Your task to perform on an android device: see tabs open on other devices in the chrome app Image 0: 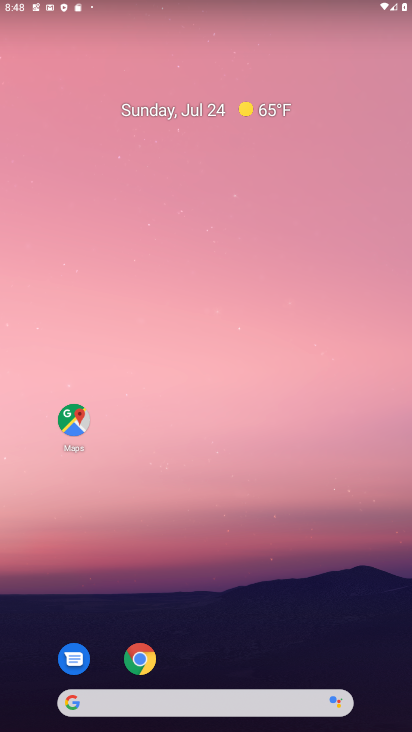
Step 0: click (139, 662)
Your task to perform on an android device: see tabs open on other devices in the chrome app Image 1: 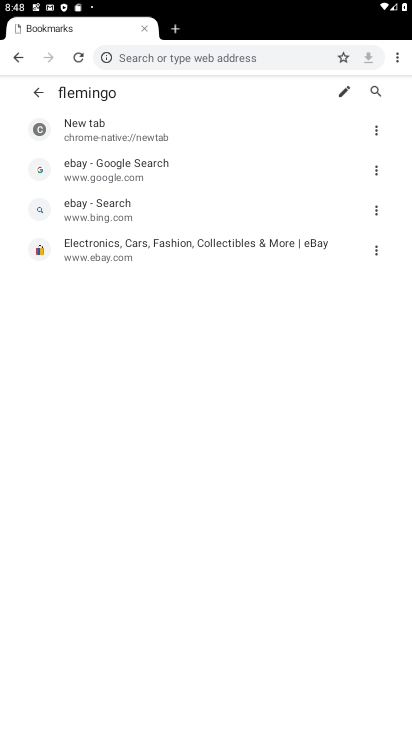
Step 1: click (396, 58)
Your task to perform on an android device: see tabs open on other devices in the chrome app Image 2: 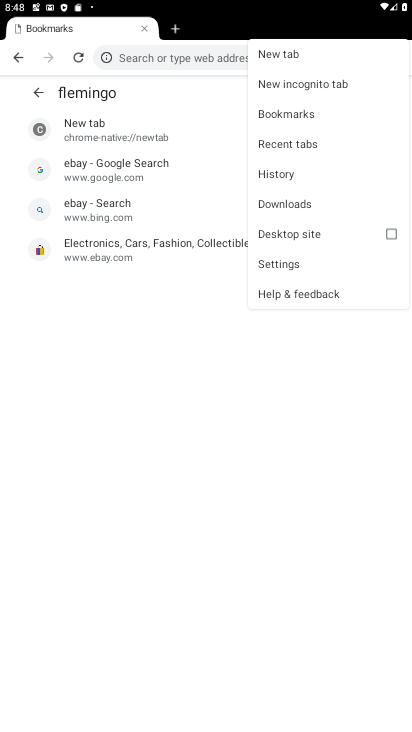
Step 2: click (300, 143)
Your task to perform on an android device: see tabs open on other devices in the chrome app Image 3: 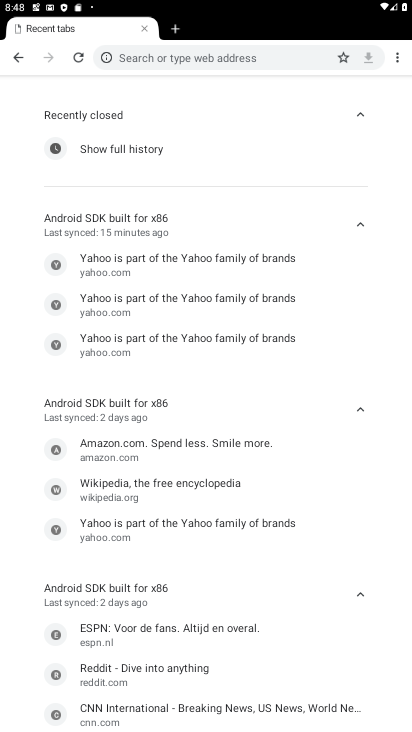
Step 3: task complete